Your task to perform on an android device: Open wifi settings Image 0: 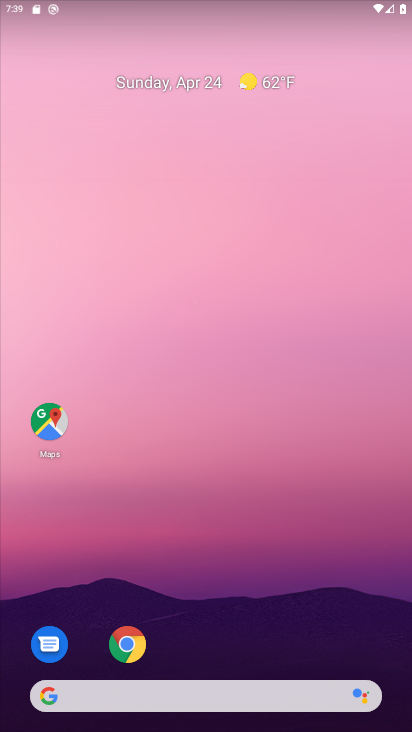
Step 0: drag from (201, 653) to (208, 136)
Your task to perform on an android device: Open wifi settings Image 1: 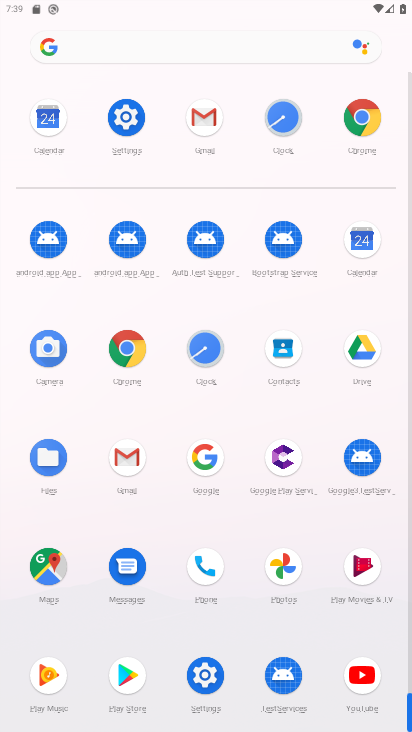
Step 1: click (121, 108)
Your task to perform on an android device: Open wifi settings Image 2: 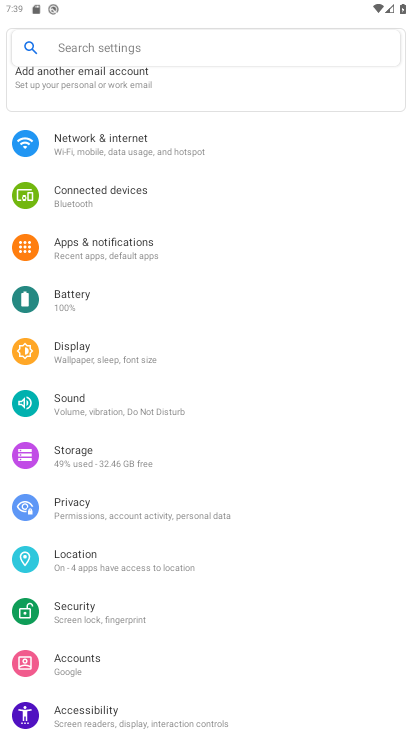
Step 2: click (122, 140)
Your task to perform on an android device: Open wifi settings Image 3: 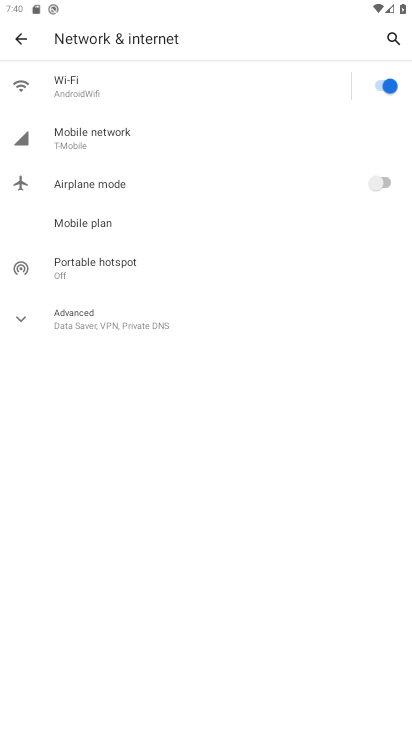
Step 3: click (113, 87)
Your task to perform on an android device: Open wifi settings Image 4: 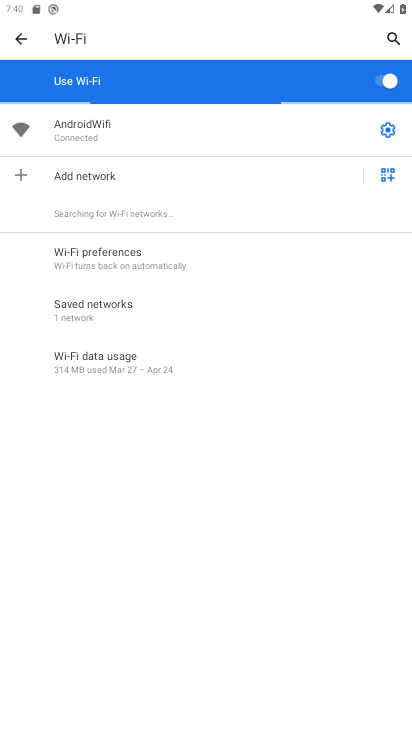
Step 4: task complete